Your task to perform on an android device: Empty the shopping cart on bestbuy. Search for "usb-c to usb-b" on bestbuy, select the first entry, add it to the cart, then select checkout. Image 0: 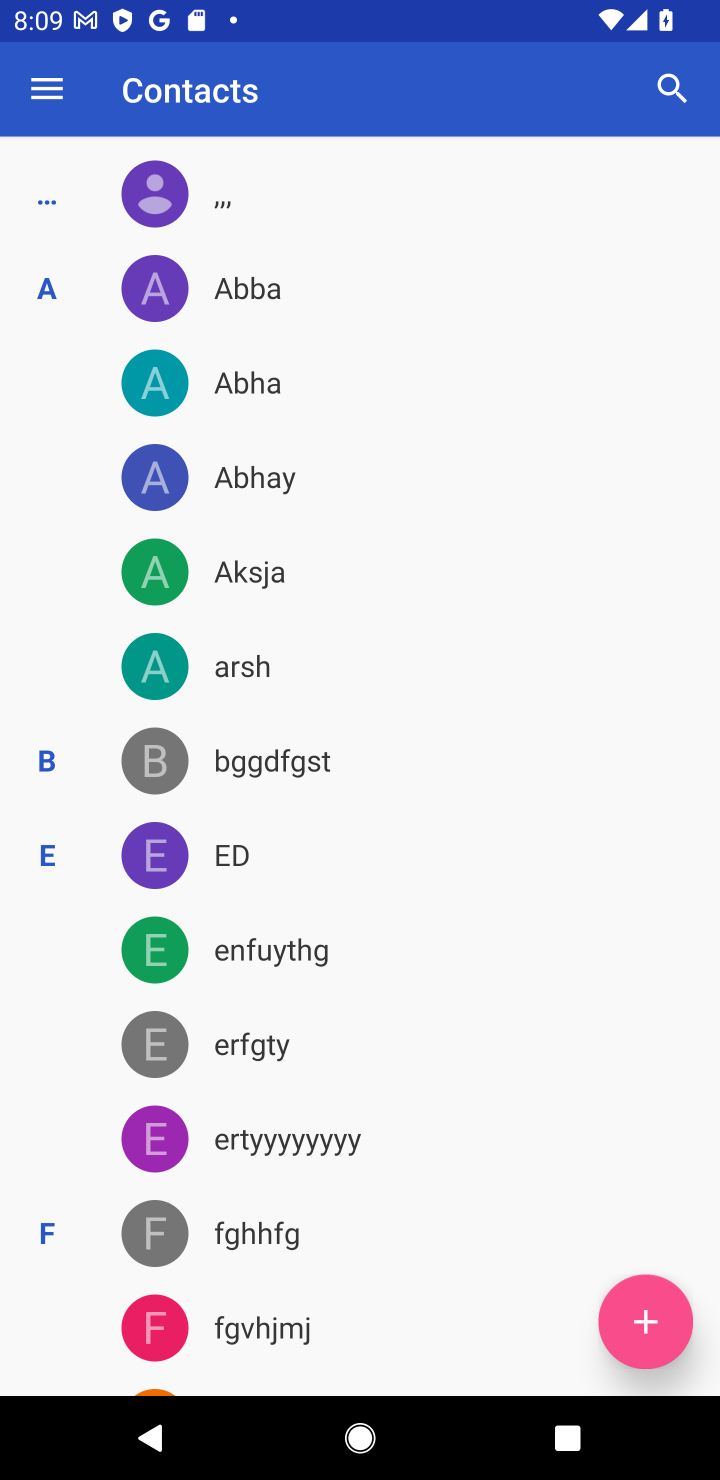
Step 0: press home button
Your task to perform on an android device: Empty the shopping cart on bestbuy. Search for "usb-c to usb-b" on bestbuy, select the first entry, add it to the cart, then select checkout. Image 1: 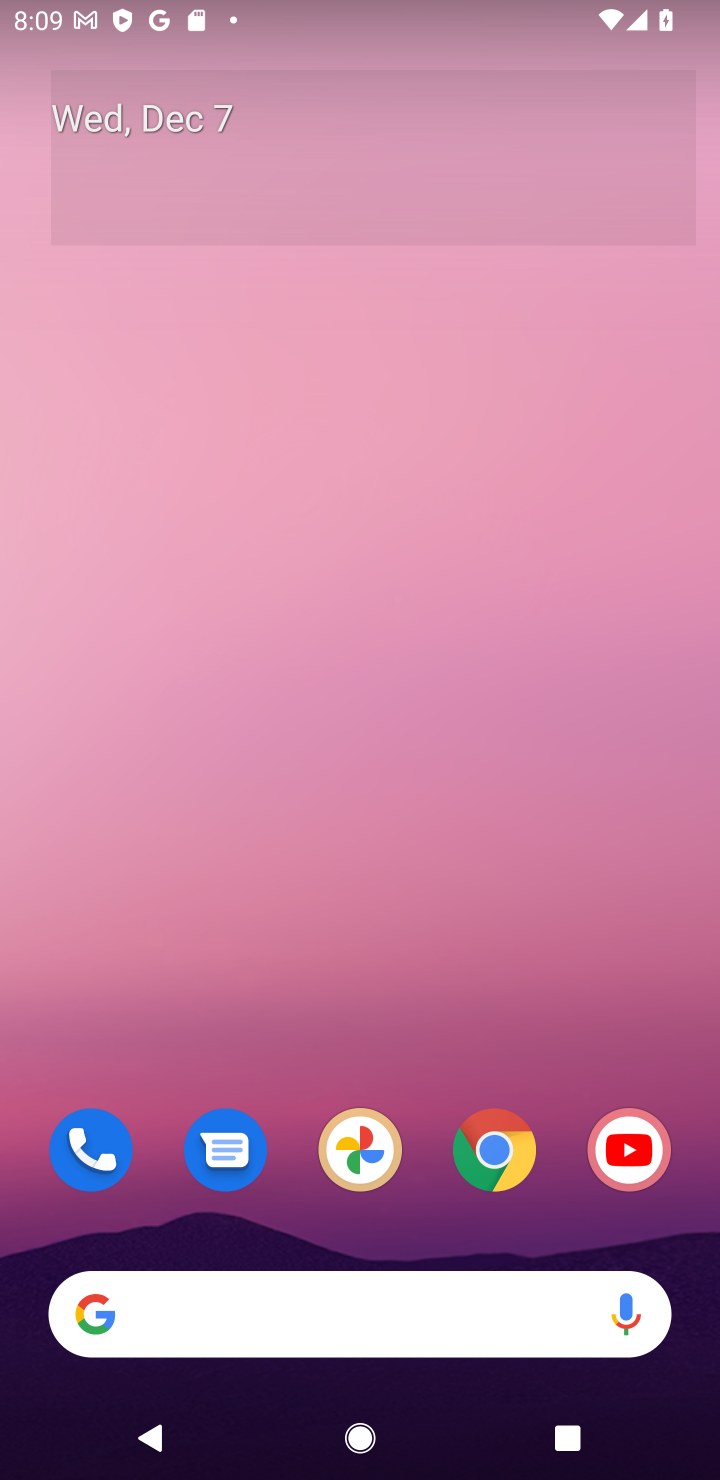
Step 1: click (503, 1150)
Your task to perform on an android device: Empty the shopping cart on bestbuy. Search for "usb-c to usb-b" on bestbuy, select the first entry, add it to the cart, then select checkout. Image 2: 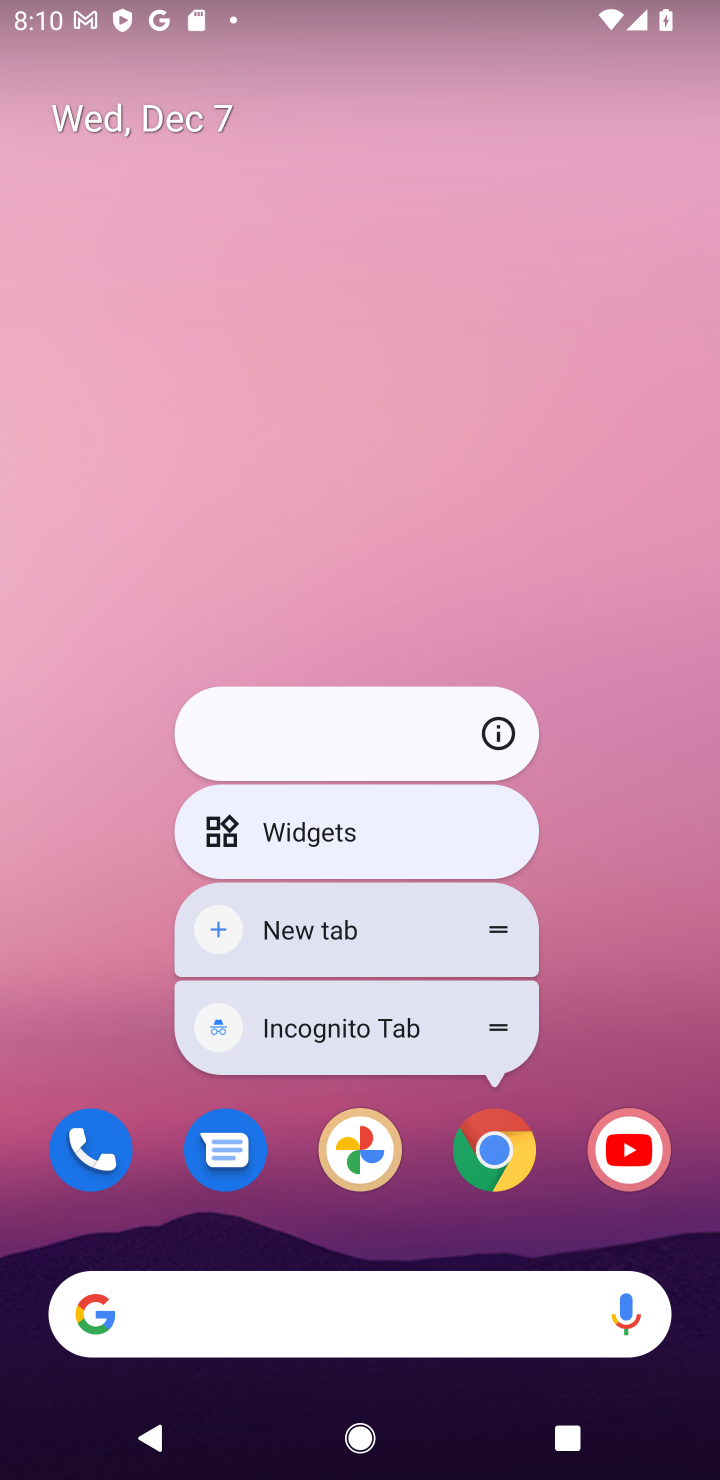
Step 2: click (502, 1149)
Your task to perform on an android device: Empty the shopping cart on bestbuy. Search for "usb-c to usb-b" on bestbuy, select the first entry, add it to the cart, then select checkout. Image 3: 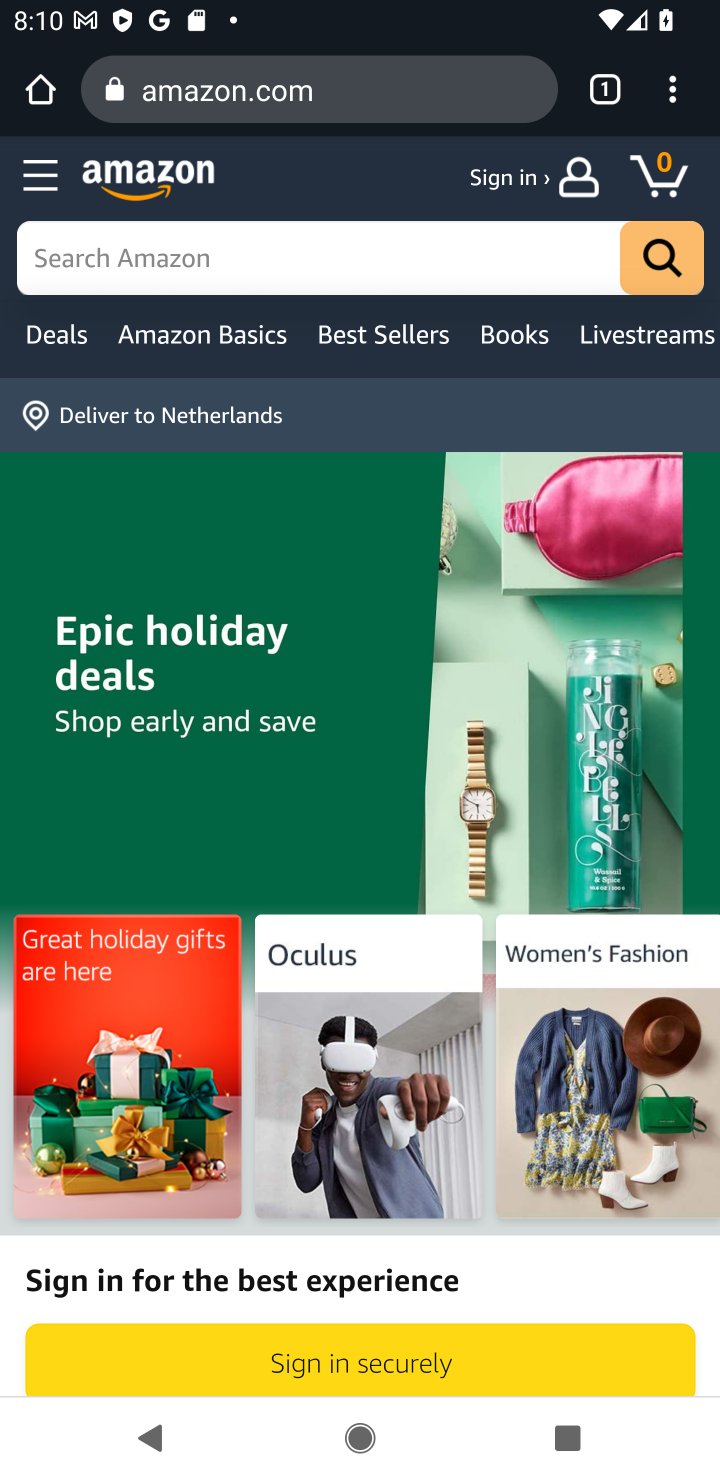
Step 3: click (346, 88)
Your task to perform on an android device: Empty the shopping cart on bestbuy. Search for "usb-c to usb-b" on bestbuy, select the first entry, add it to the cart, then select checkout. Image 4: 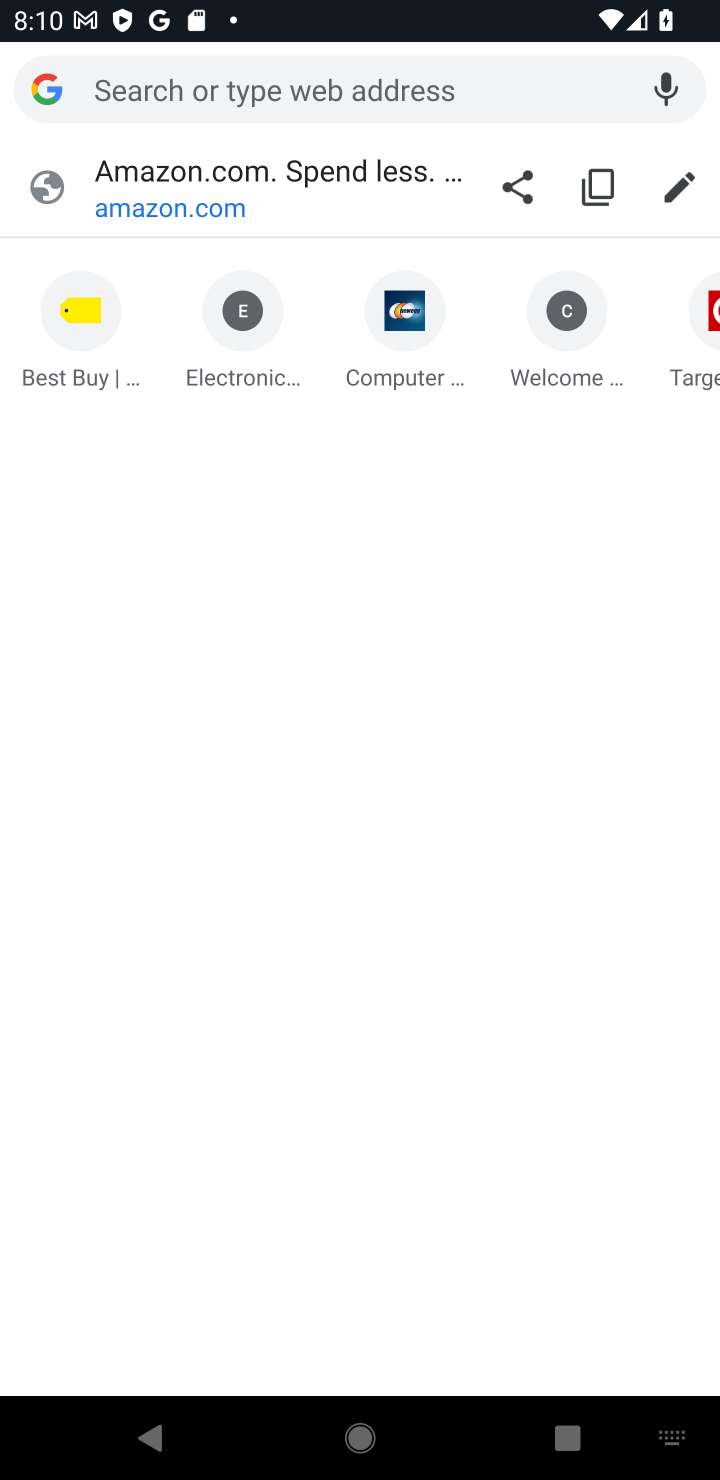
Step 4: press enter
Your task to perform on an android device: Empty the shopping cart on bestbuy. Search for "usb-c to usb-b" on bestbuy, select the first entry, add it to the cart, then select checkout. Image 5: 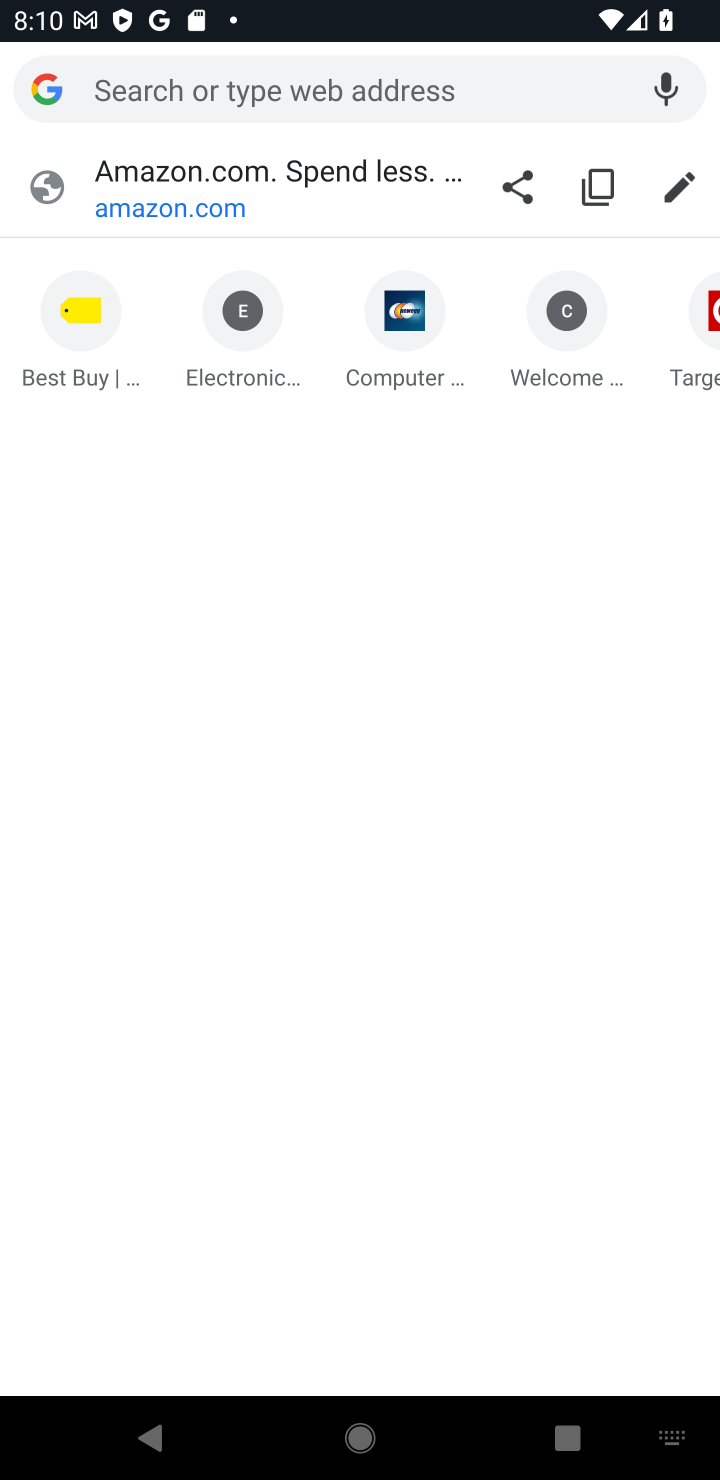
Step 5: type "bestbuy"
Your task to perform on an android device: Empty the shopping cart on bestbuy. Search for "usb-c to usb-b" on bestbuy, select the first entry, add it to the cart, then select checkout. Image 6: 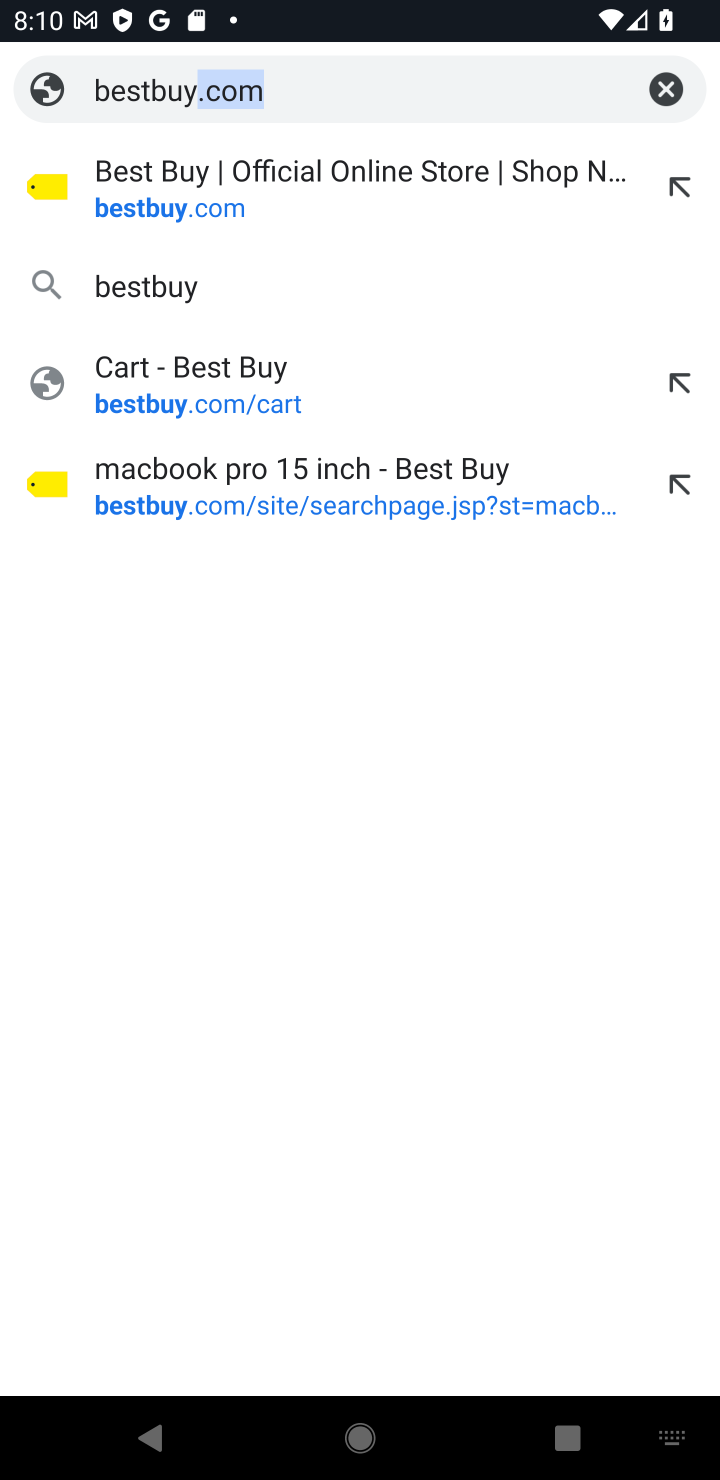
Step 6: click (123, 287)
Your task to perform on an android device: Empty the shopping cart on bestbuy. Search for "usb-c to usb-b" on bestbuy, select the first entry, add it to the cart, then select checkout. Image 7: 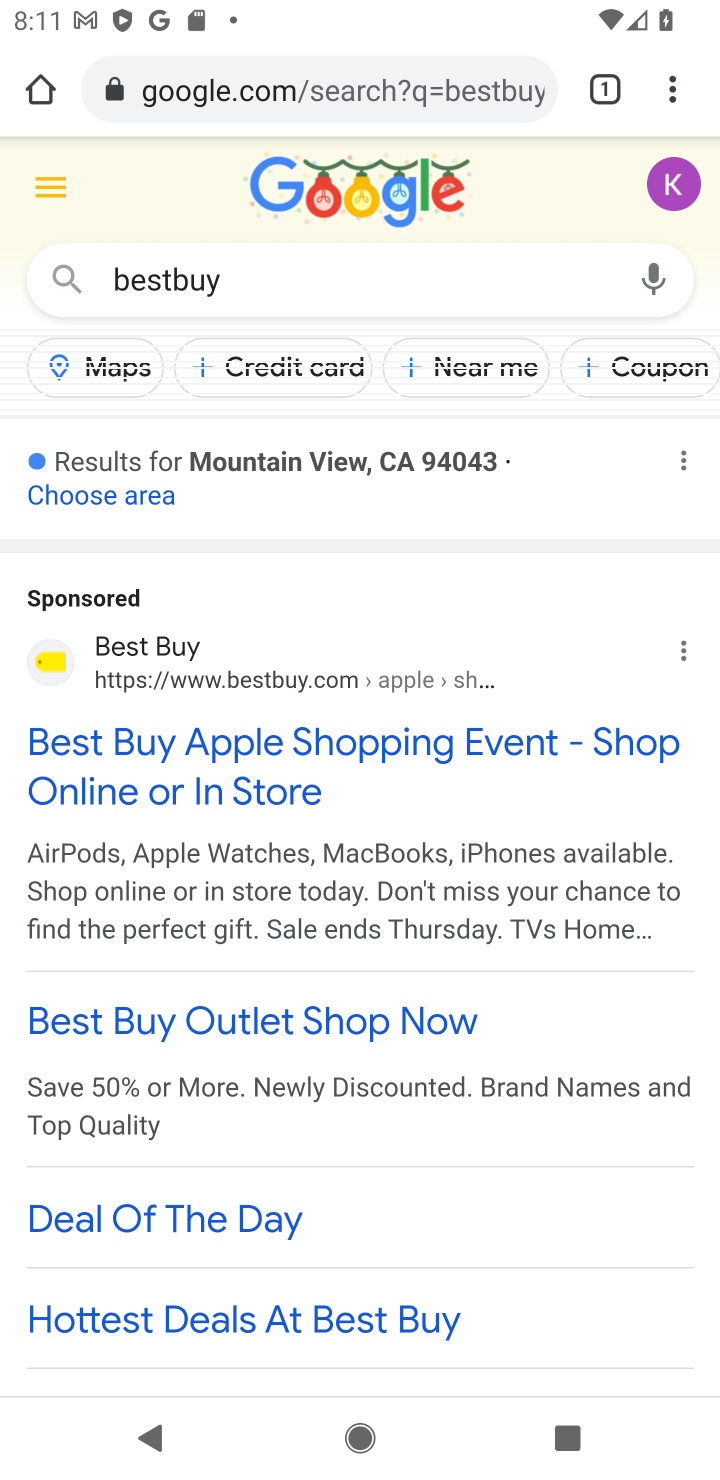
Step 7: click (265, 675)
Your task to perform on an android device: Empty the shopping cart on bestbuy. Search for "usb-c to usb-b" on bestbuy, select the first entry, add it to the cart, then select checkout. Image 8: 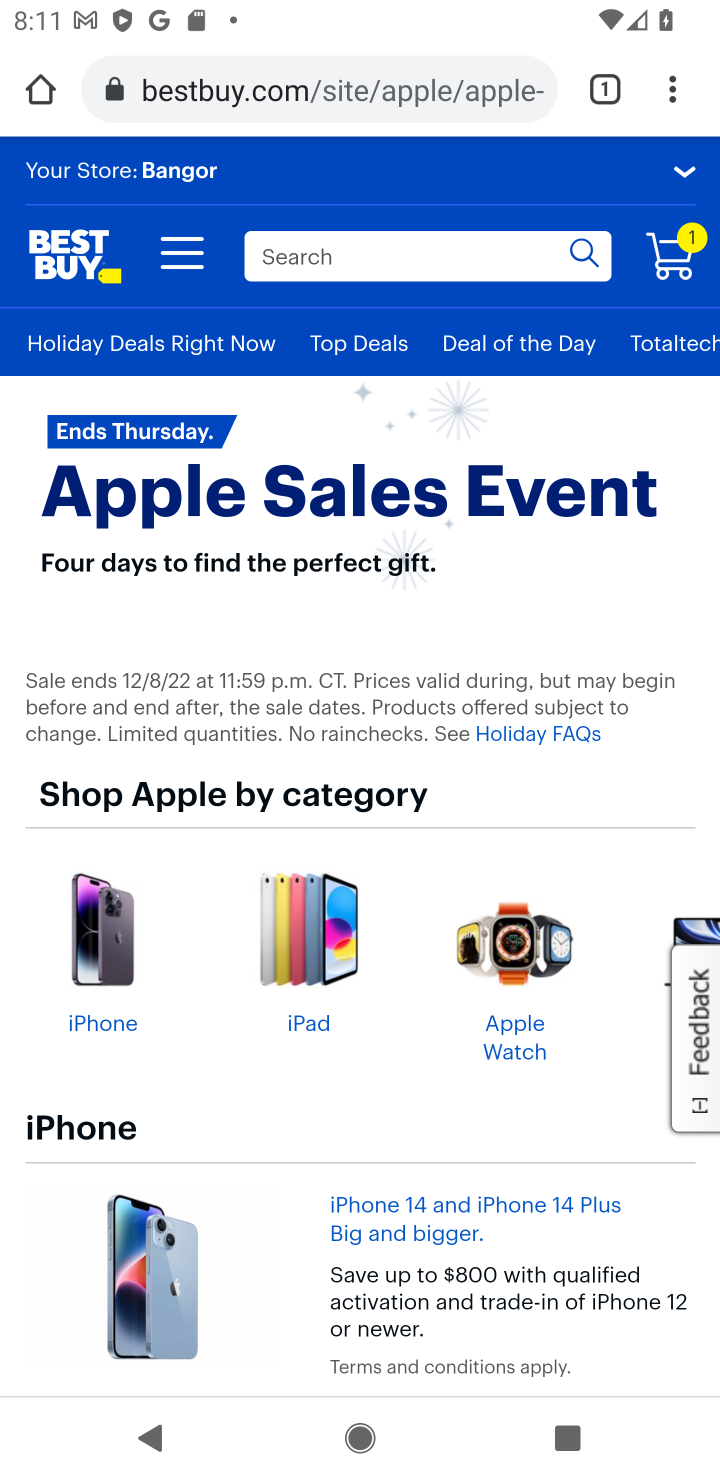
Step 8: click (661, 247)
Your task to perform on an android device: Empty the shopping cart on bestbuy. Search for "usb-c to usb-b" on bestbuy, select the first entry, add it to the cart, then select checkout. Image 9: 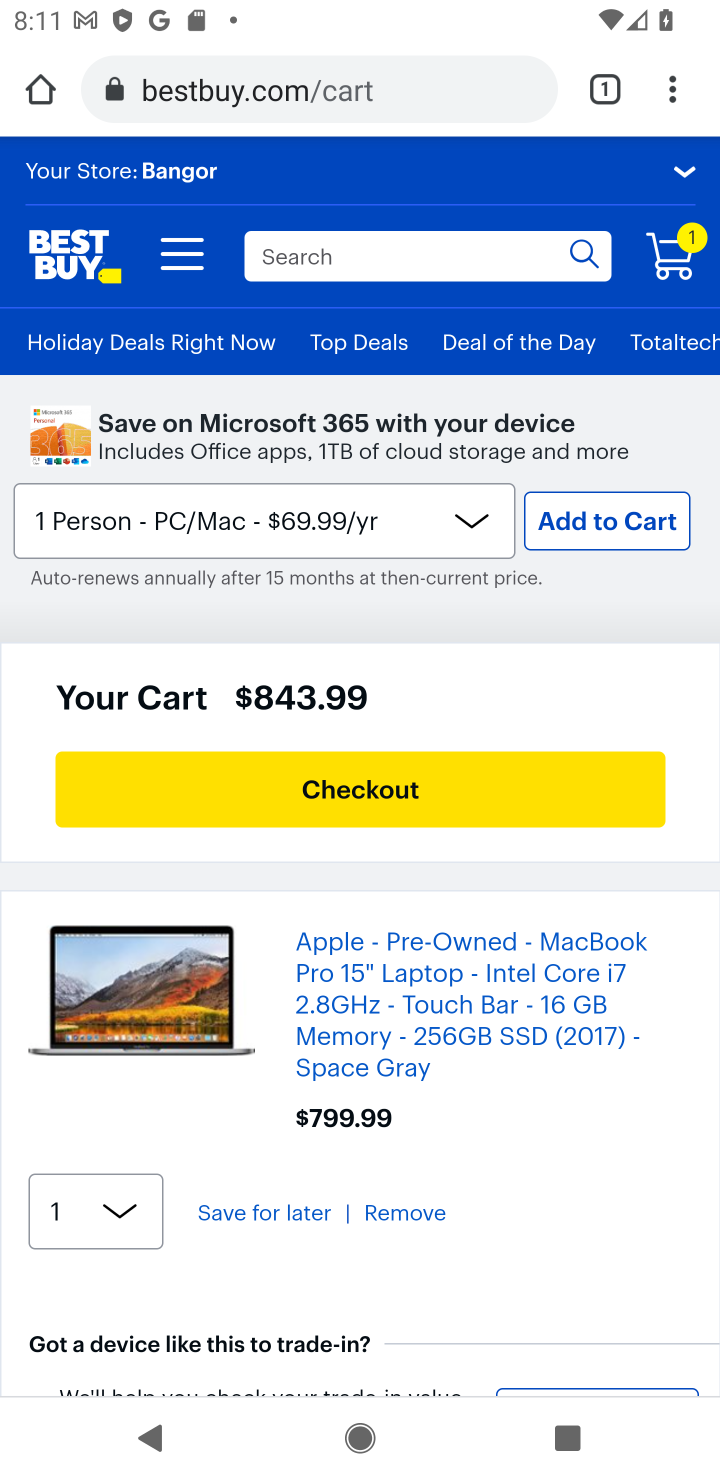
Step 9: click (403, 1208)
Your task to perform on an android device: Empty the shopping cart on bestbuy. Search for "usb-c to usb-b" on bestbuy, select the first entry, add it to the cart, then select checkout. Image 10: 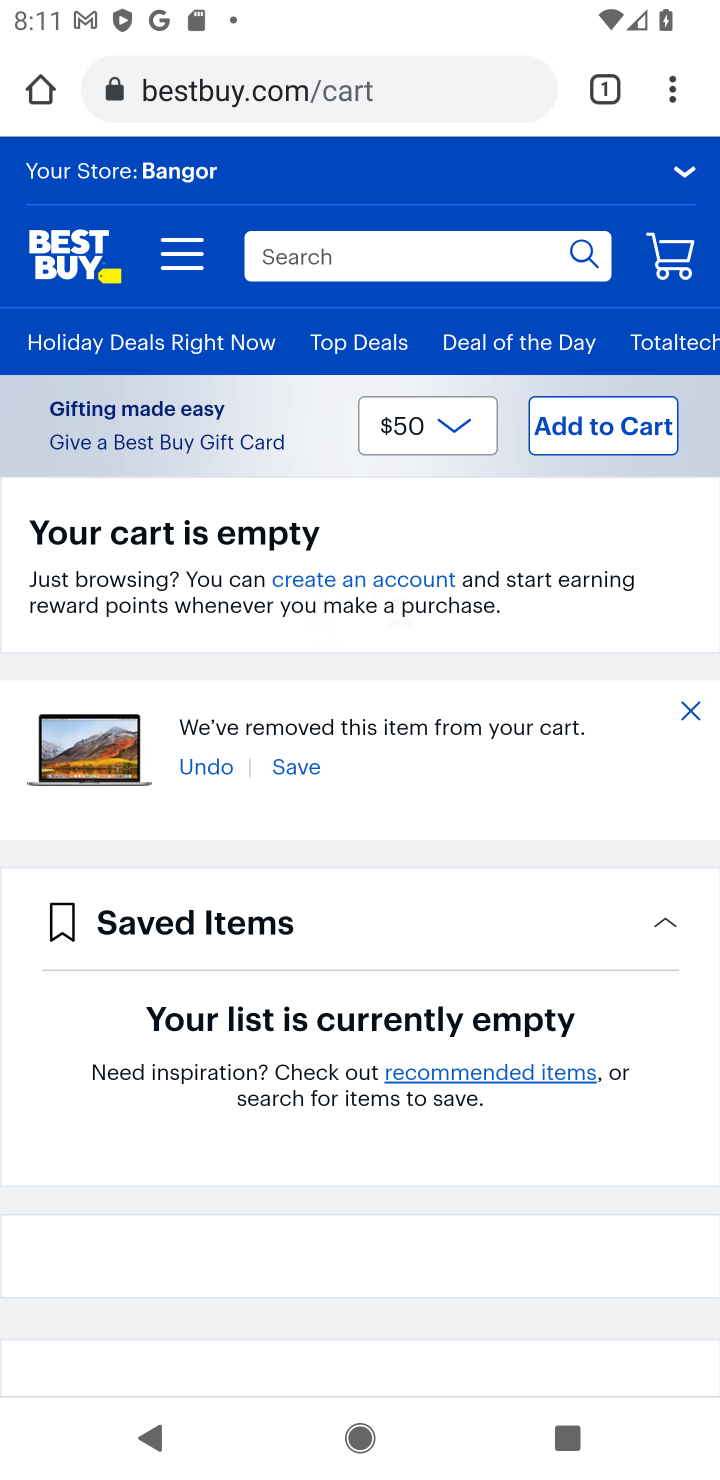
Step 10: click (405, 252)
Your task to perform on an android device: Empty the shopping cart on bestbuy. Search for "usb-c to usb-b" on bestbuy, select the first entry, add it to the cart, then select checkout. Image 11: 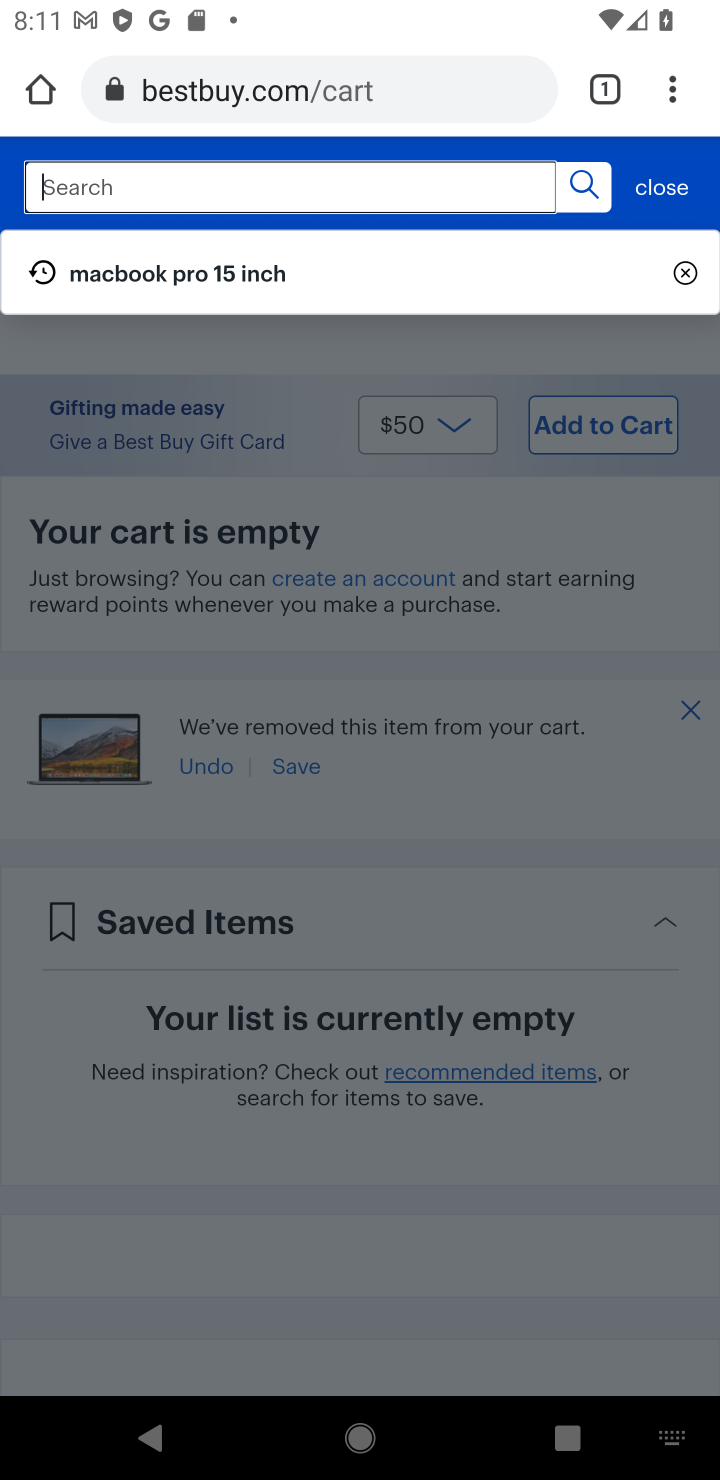
Step 11: type "usb-c to usb-b"
Your task to perform on an android device: Empty the shopping cart on bestbuy. Search for "usb-c to usb-b" on bestbuy, select the first entry, add it to the cart, then select checkout. Image 12: 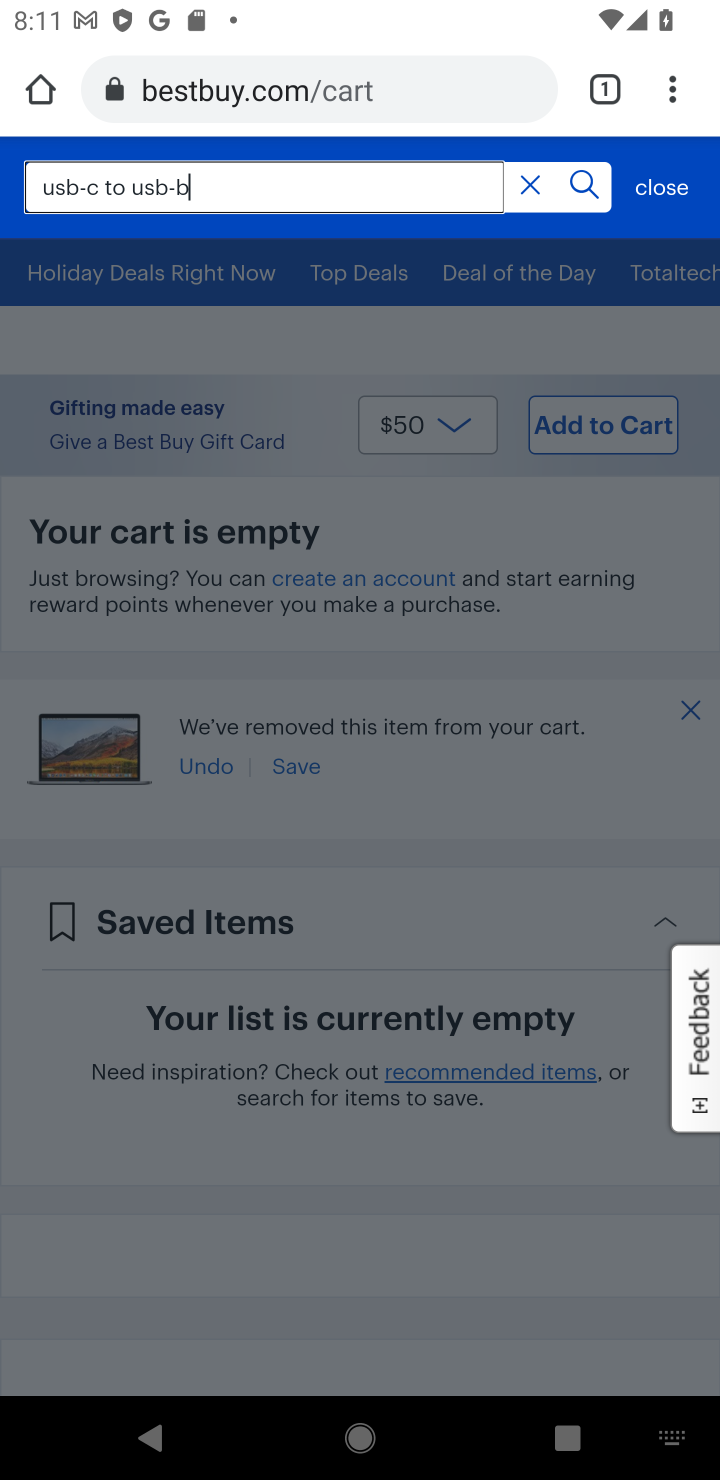
Step 12: click (590, 187)
Your task to perform on an android device: Empty the shopping cart on bestbuy. Search for "usb-c to usb-b" on bestbuy, select the first entry, add it to the cart, then select checkout. Image 13: 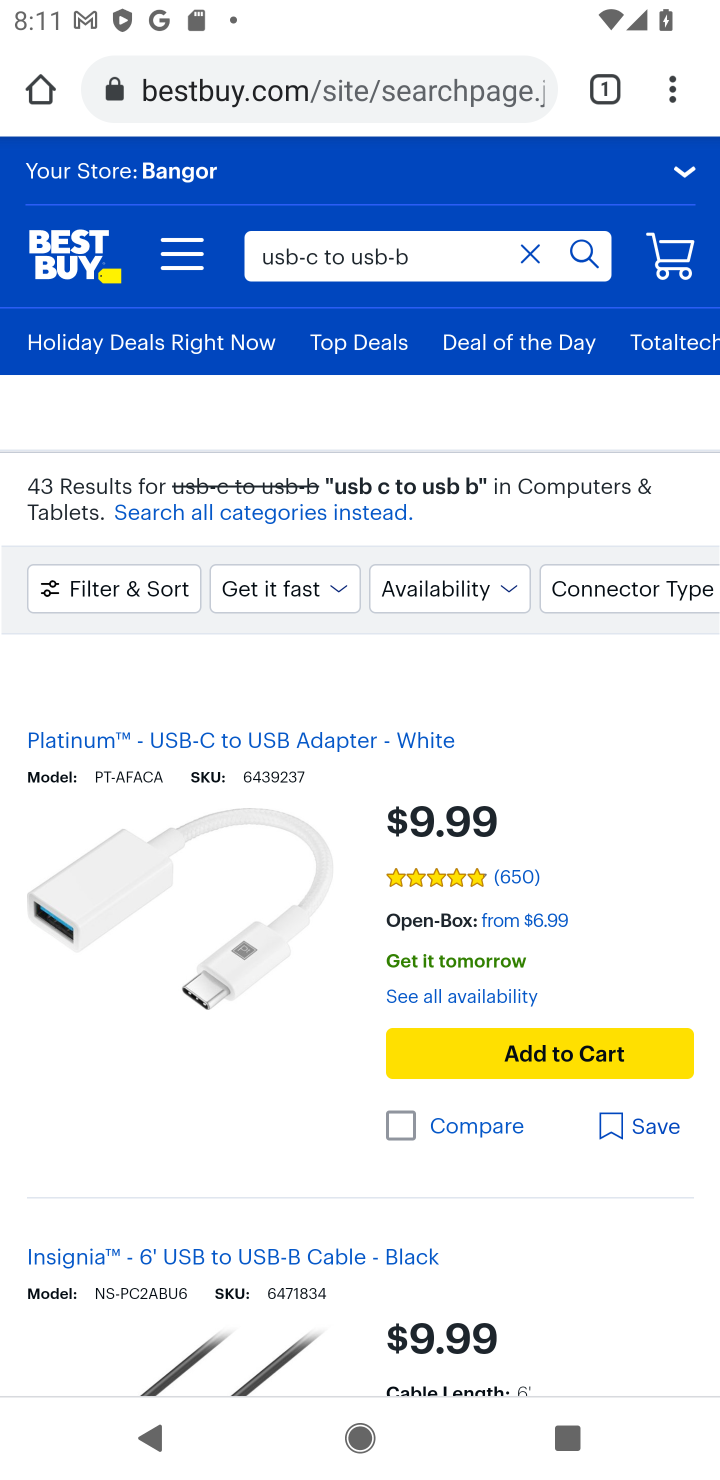
Step 13: task complete